Your task to perform on an android device: Who is the prime minister of Canada? Image 0: 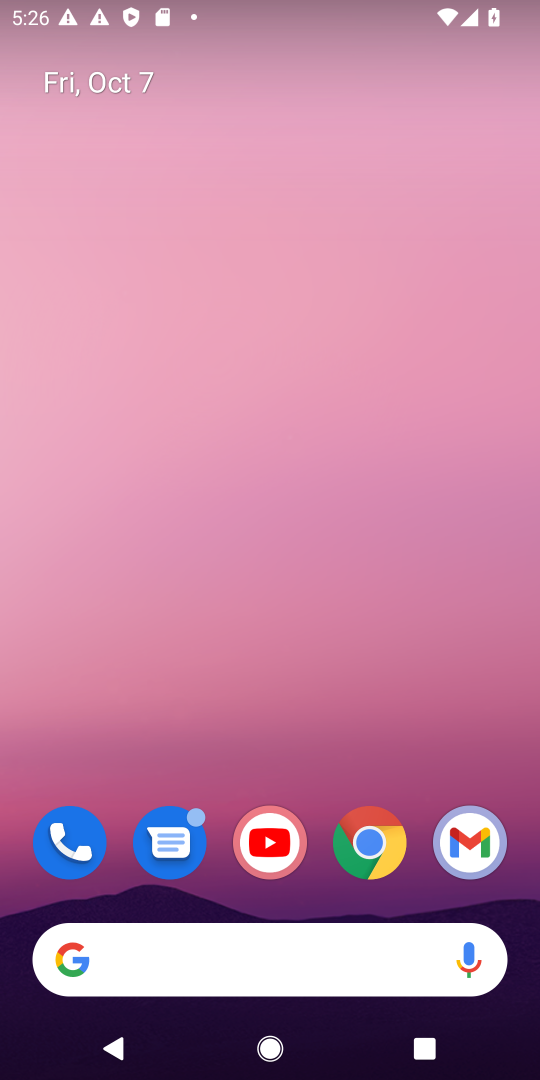
Step 0: click (293, 977)
Your task to perform on an android device: Who is the prime minister of Canada? Image 1: 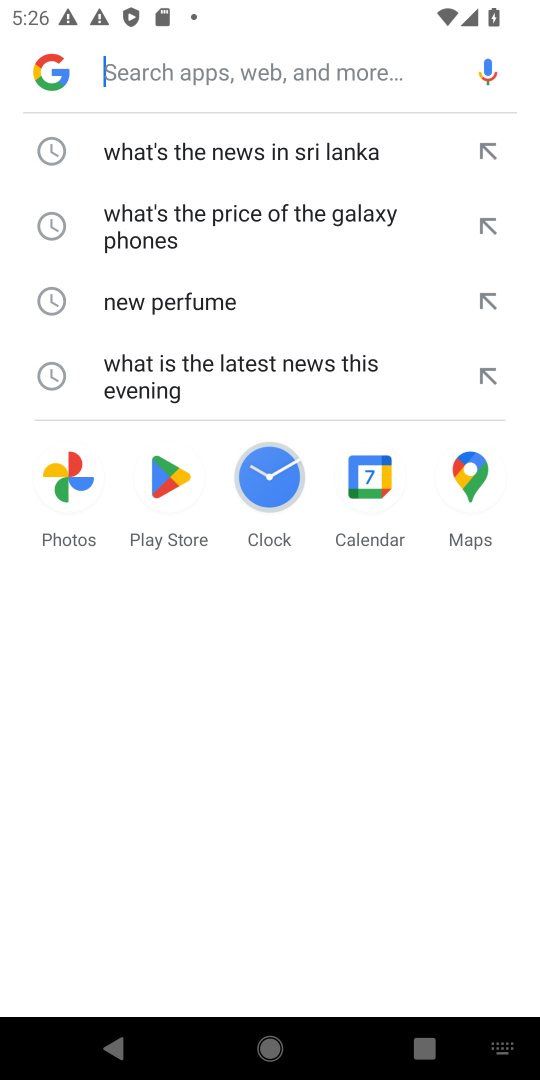
Step 1: click (264, 79)
Your task to perform on an android device: Who is the prime minister of Canada? Image 2: 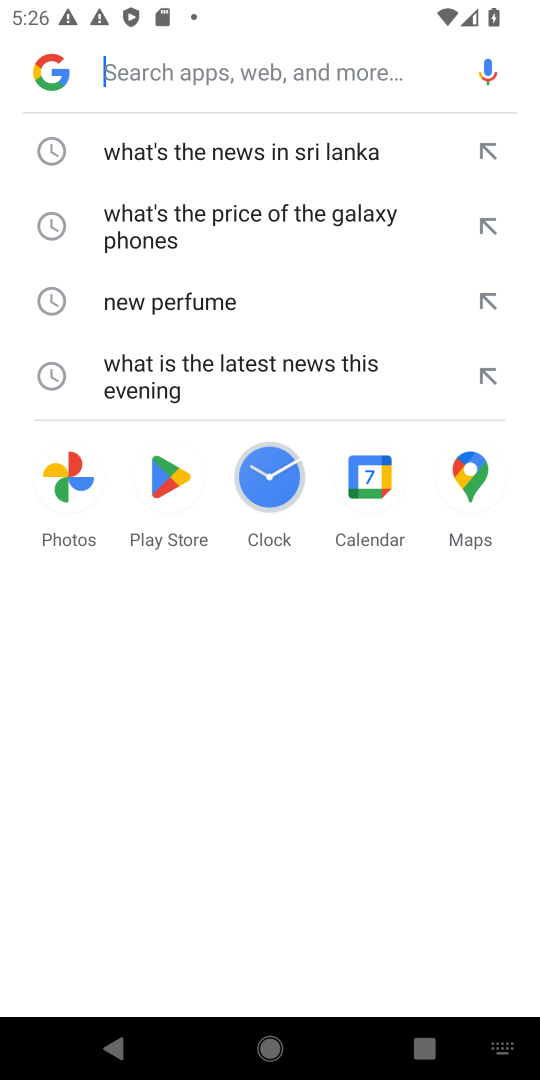
Step 2: type "Who is the prime minister of Canada?"
Your task to perform on an android device: Who is the prime minister of Canada? Image 3: 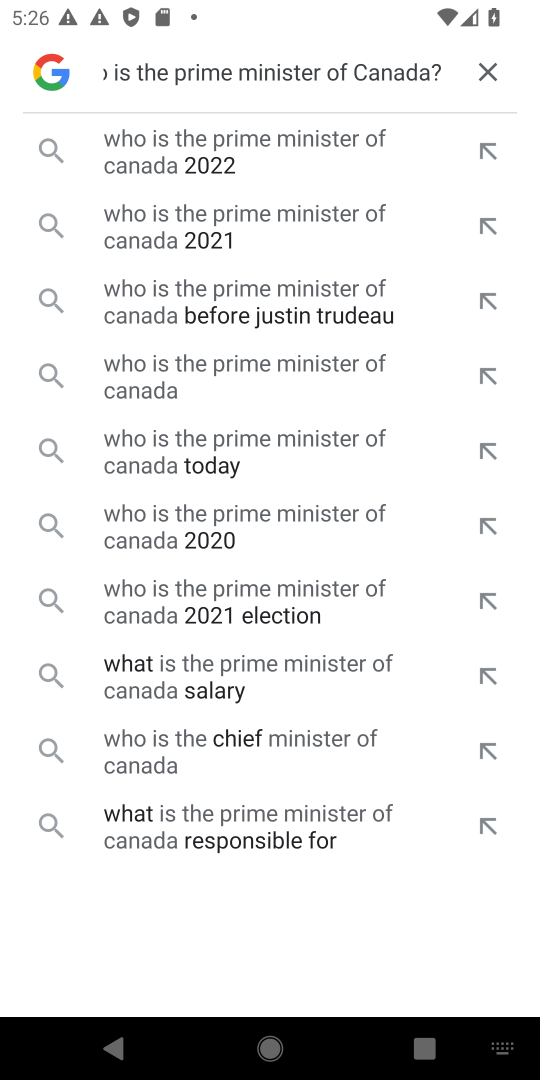
Step 3: click (225, 155)
Your task to perform on an android device: Who is the prime minister of Canada? Image 4: 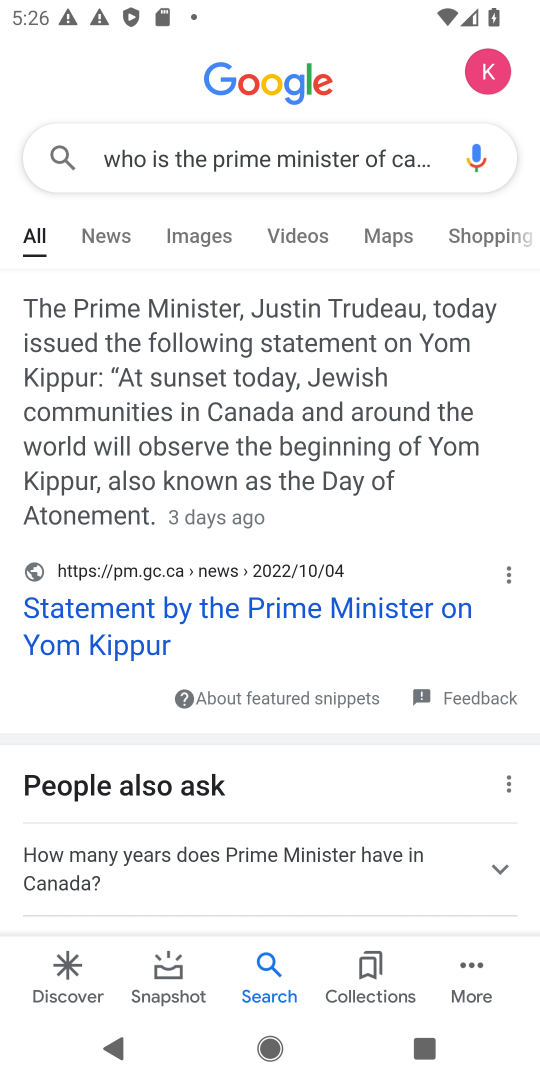
Step 4: task complete